Your task to perform on an android device: Go to settings Image 0: 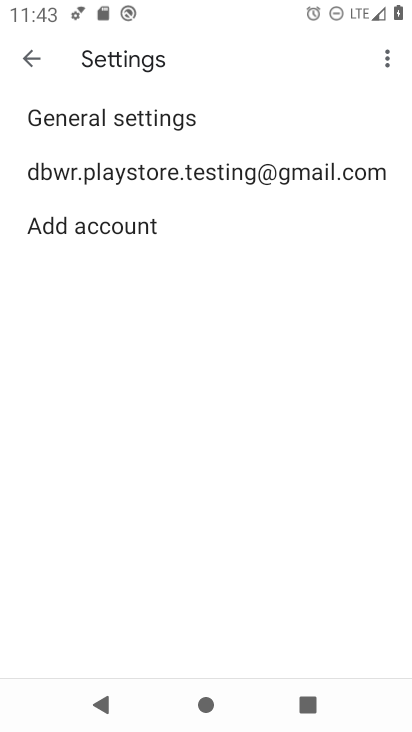
Step 0: press back button
Your task to perform on an android device: Go to settings Image 1: 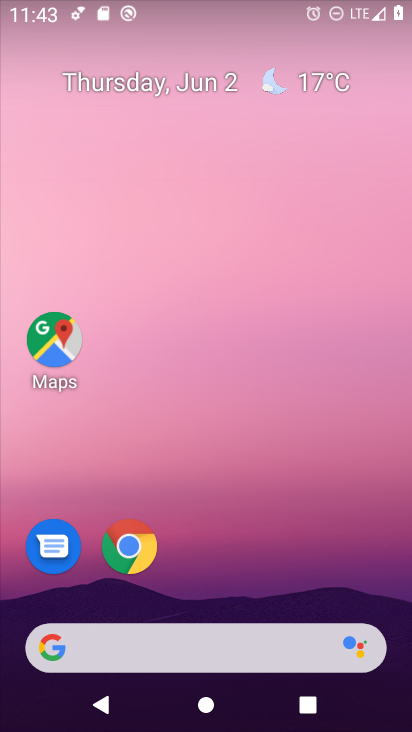
Step 1: drag from (234, 449) to (218, 10)
Your task to perform on an android device: Go to settings Image 2: 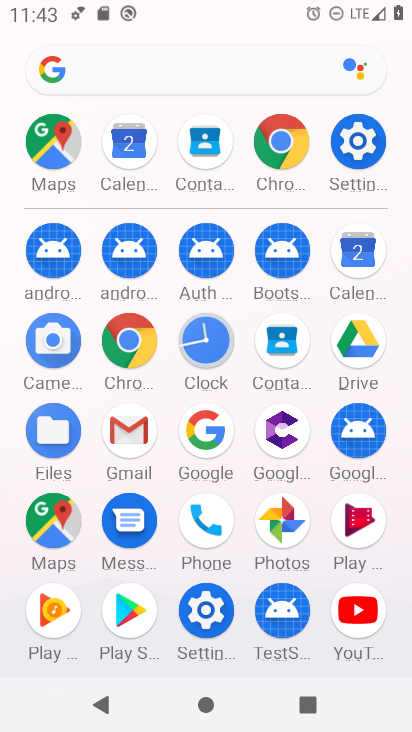
Step 2: click (205, 608)
Your task to perform on an android device: Go to settings Image 3: 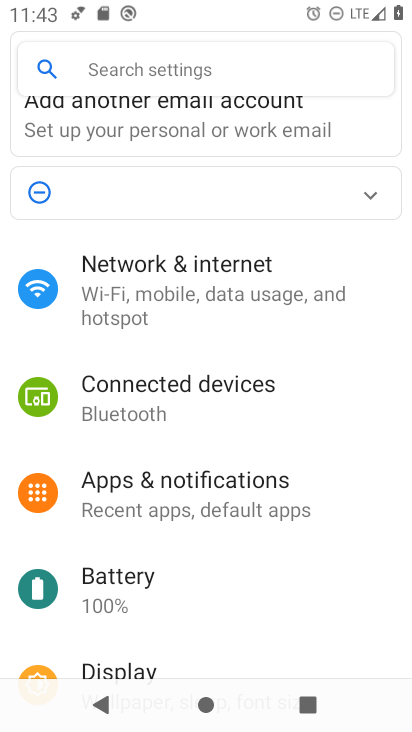
Step 3: task complete